Your task to perform on an android device: delete the emails in spam in the gmail app Image 0: 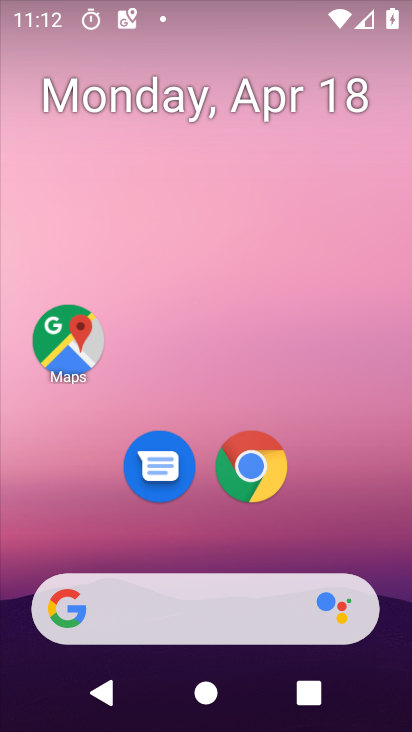
Step 0: drag from (257, 522) to (280, 87)
Your task to perform on an android device: delete the emails in spam in the gmail app Image 1: 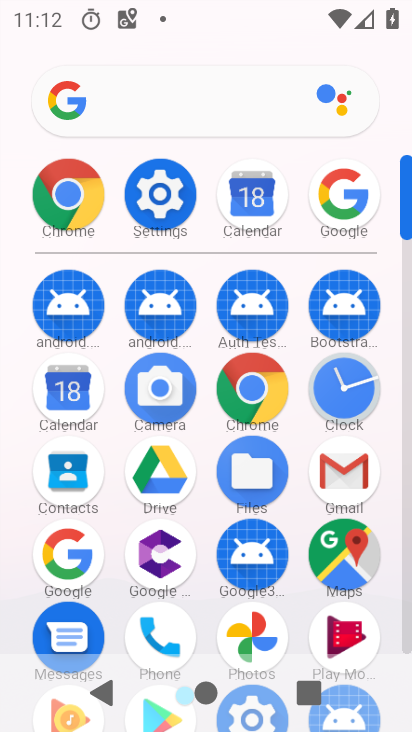
Step 1: click (349, 486)
Your task to perform on an android device: delete the emails in spam in the gmail app Image 2: 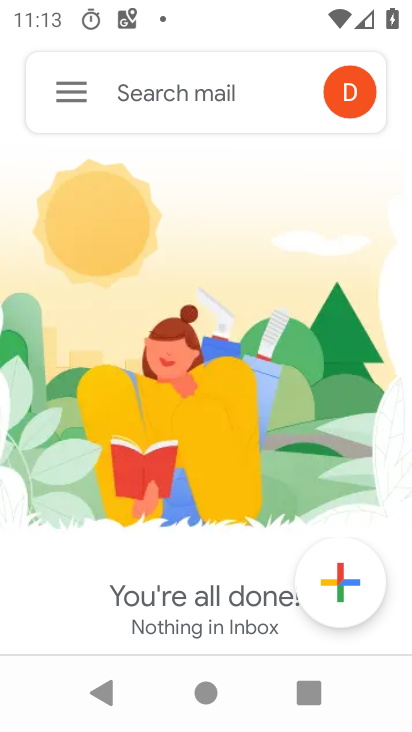
Step 2: click (80, 93)
Your task to perform on an android device: delete the emails in spam in the gmail app Image 3: 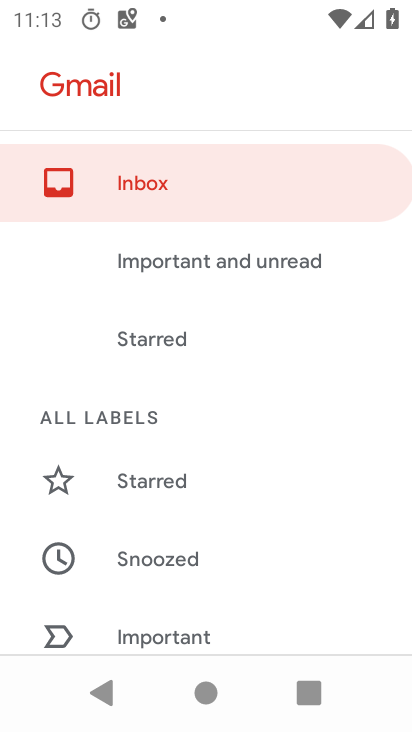
Step 3: drag from (209, 553) to (234, 91)
Your task to perform on an android device: delete the emails in spam in the gmail app Image 4: 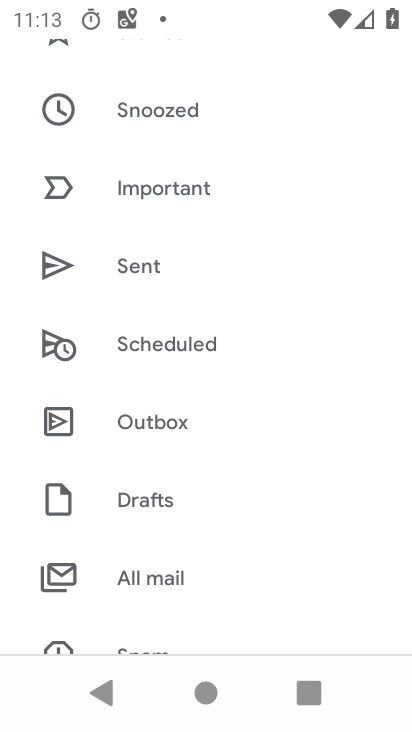
Step 4: click (211, 580)
Your task to perform on an android device: delete the emails in spam in the gmail app Image 5: 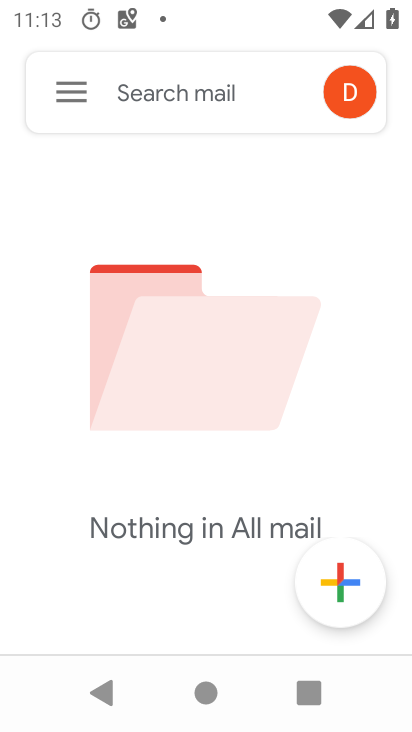
Step 5: task complete